Your task to perform on an android device: open app "PlayWell" (install if not already installed) Image 0: 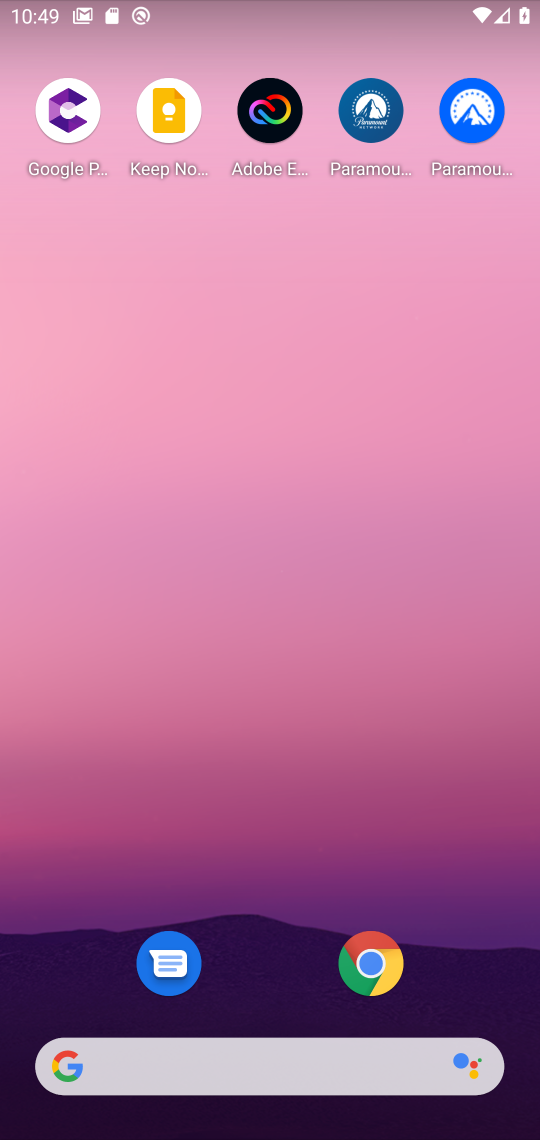
Step 0: drag from (270, 1005) to (258, 0)
Your task to perform on an android device: open app "PlayWell" (install if not already installed) Image 1: 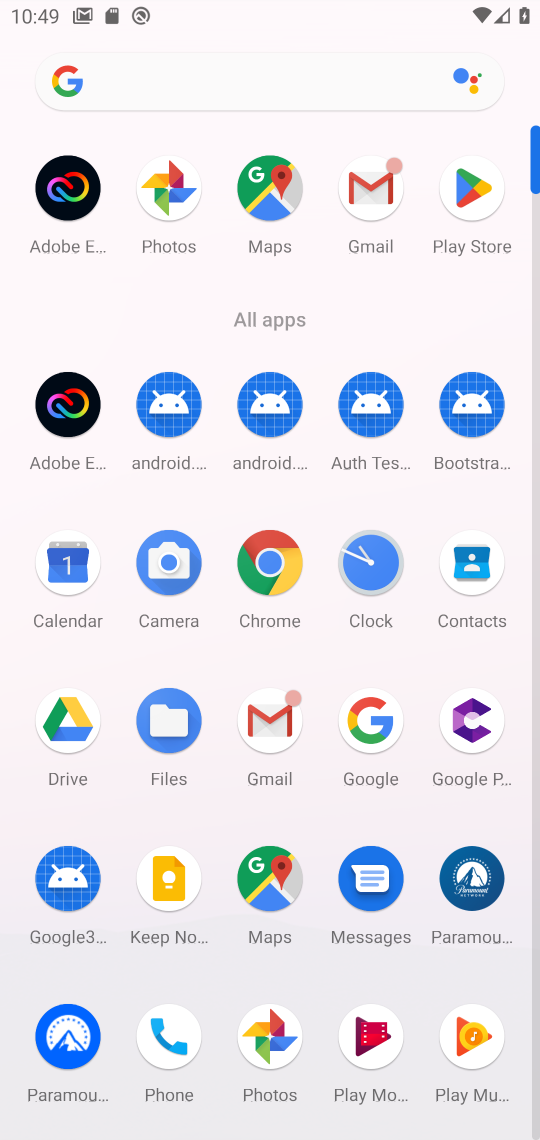
Step 1: click (491, 204)
Your task to perform on an android device: open app "PlayWell" (install if not already installed) Image 2: 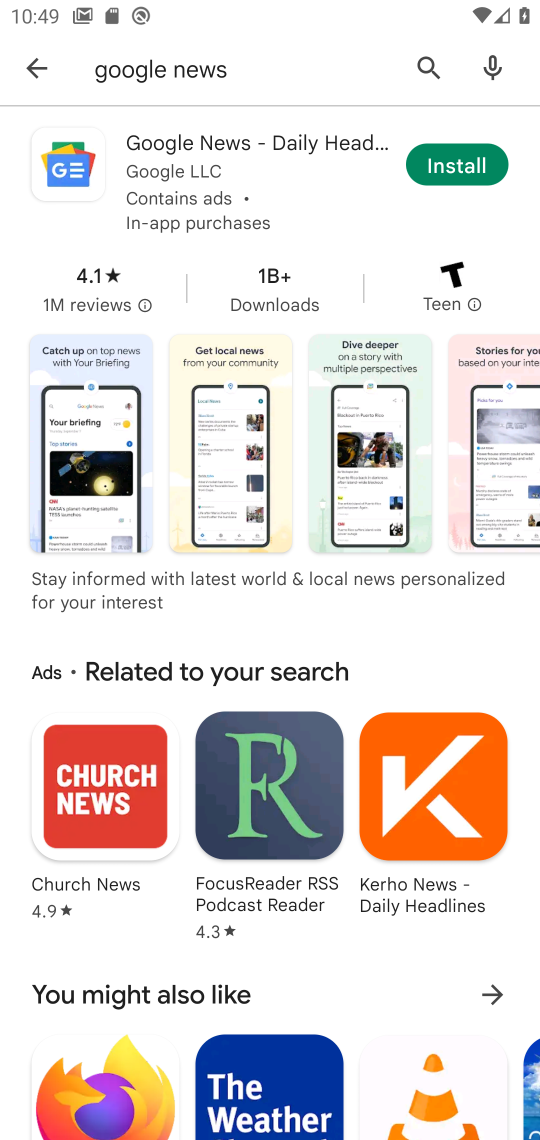
Step 2: click (223, 69)
Your task to perform on an android device: open app "PlayWell" (install if not already installed) Image 3: 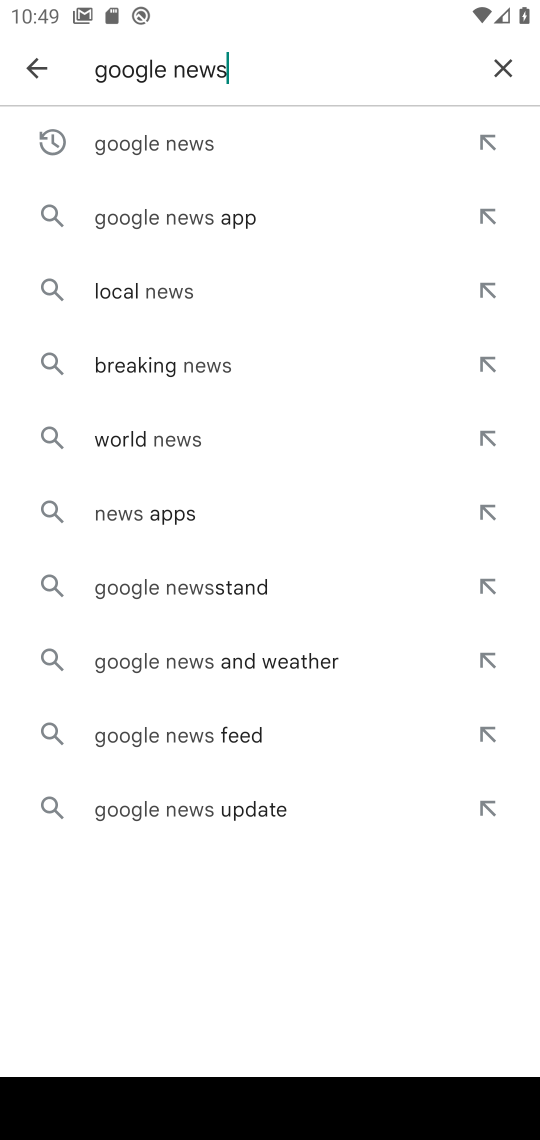
Step 3: click (506, 66)
Your task to perform on an android device: open app "PlayWell" (install if not already installed) Image 4: 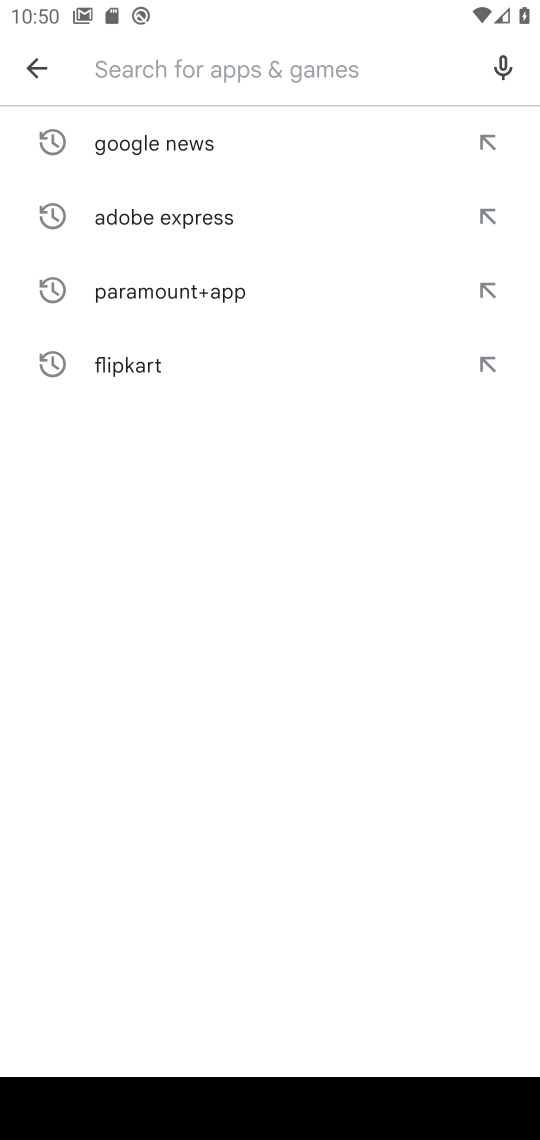
Step 4: type "playwell"
Your task to perform on an android device: open app "PlayWell" (install if not already installed) Image 5: 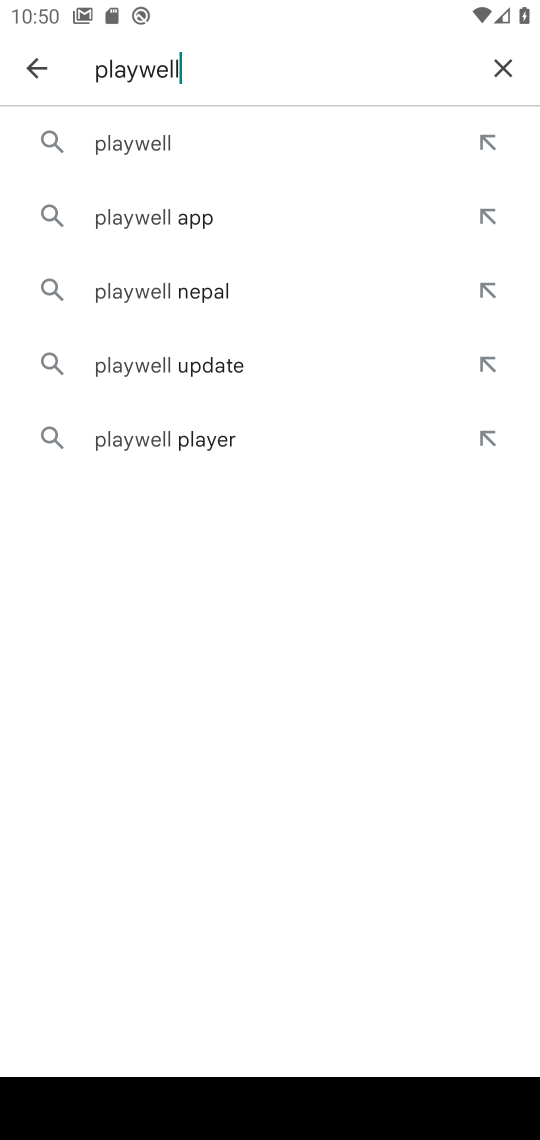
Step 5: click (216, 135)
Your task to perform on an android device: open app "PlayWell" (install if not already installed) Image 6: 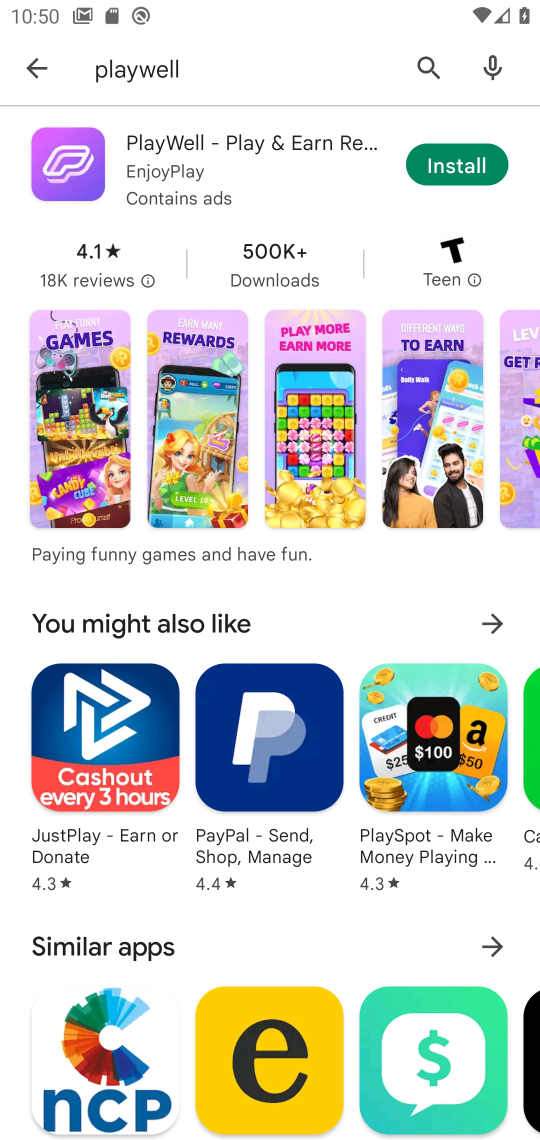
Step 6: click (477, 166)
Your task to perform on an android device: open app "PlayWell" (install if not already installed) Image 7: 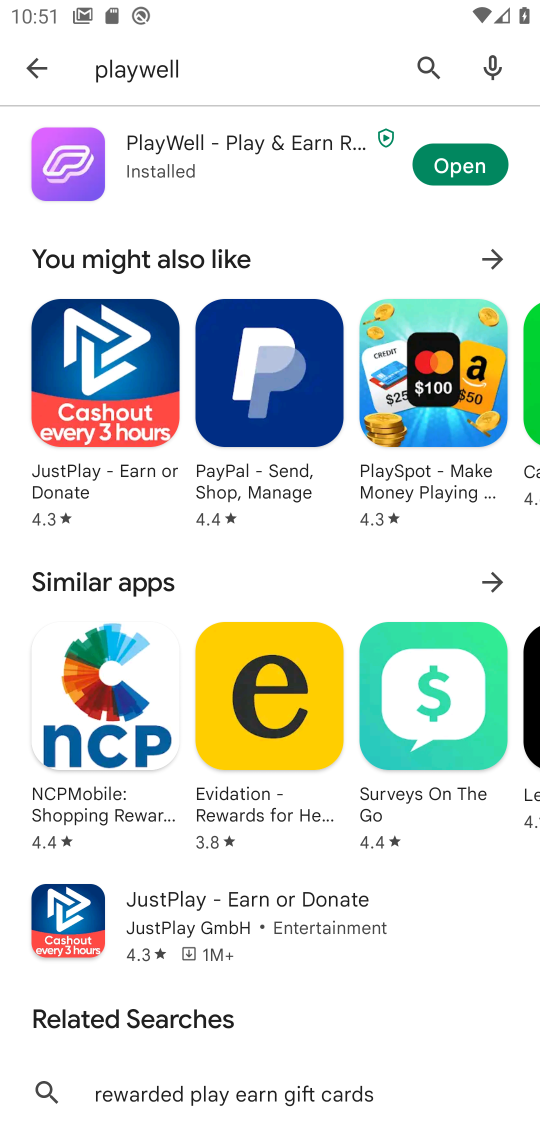
Step 7: click (469, 164)
Your task to perform on an android device: open app "PlayWell" (install if not already installed) Image 8: 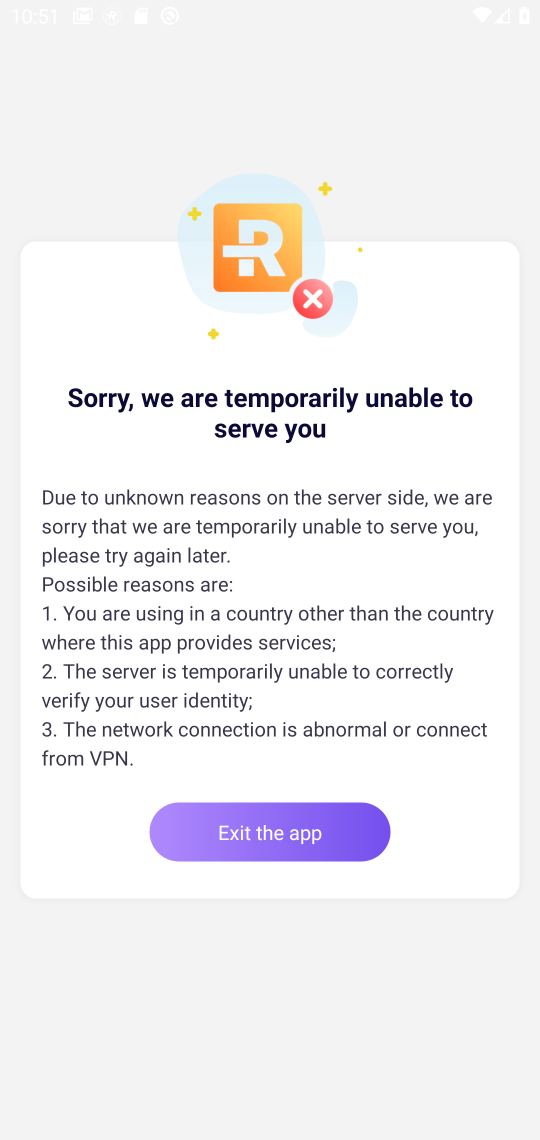
Step 8: click (298, 835)
Your task to perform on an android device: open app "PlayWell" (install if not already installed) Image 9: 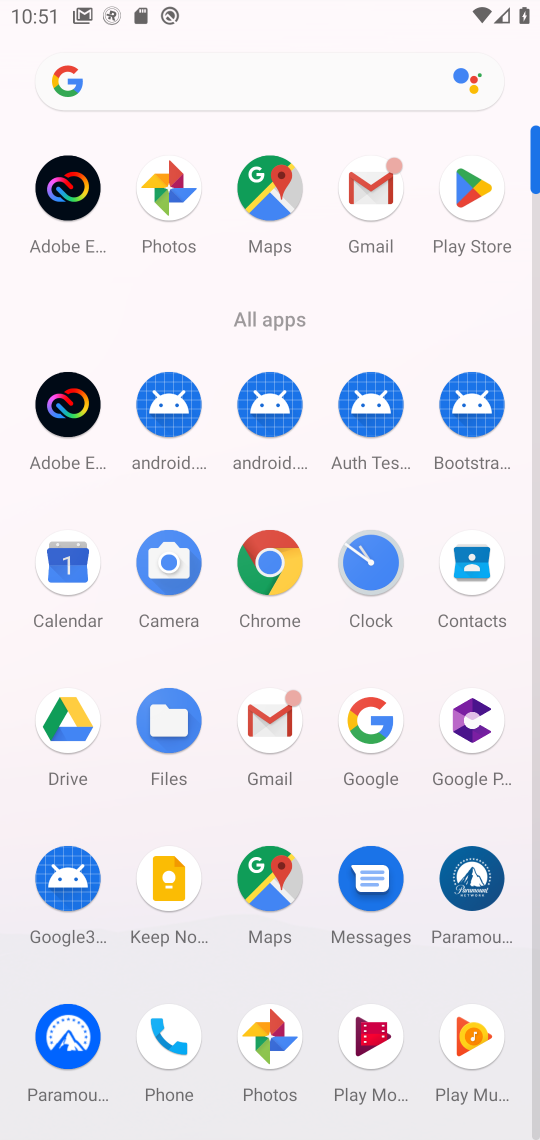
Step 9: task complete